Your task to perform on an android device: Turn on the flashlight Image 0: 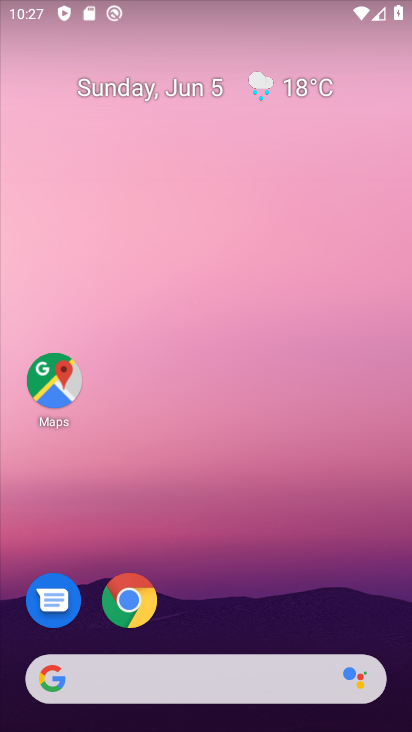
Step 0: drag from (235, 553) to (263, 334)
Your task to perform on an android device: Turn on the flashlight Image 1: 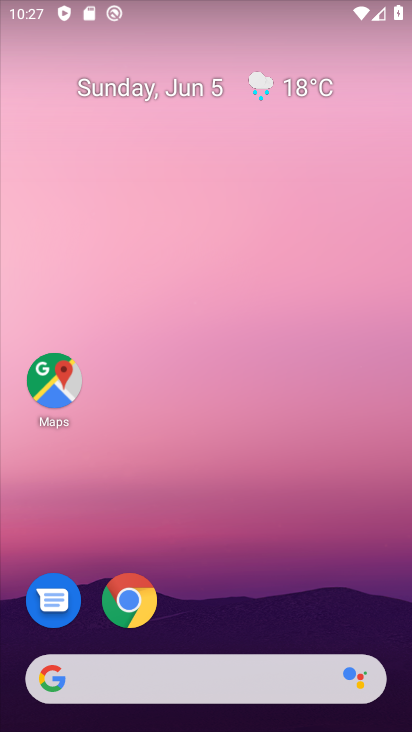
Step 1: drag from (259, 583) to (289, 229)
Your task to perform on an android device: Turn on the flashlight Image 2: 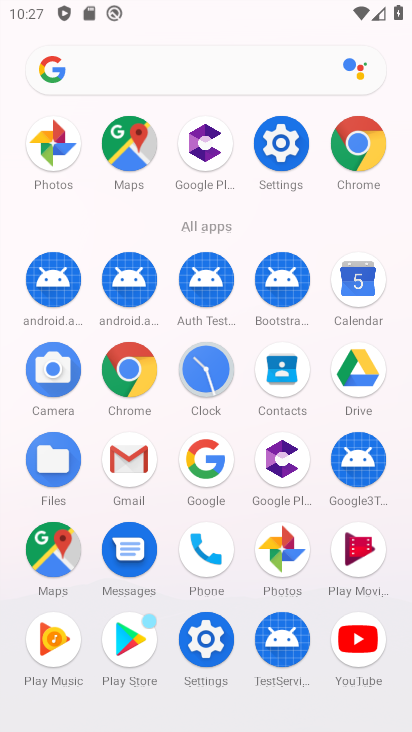
Step 2: click (285, 145)
Your task to perform on an android device: Turn on the flashlight Image 3: 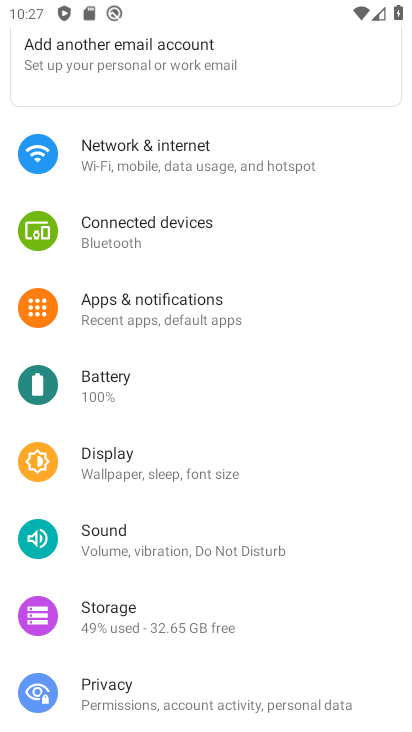
Step 3: task complete